Your task to perform on an android device: Open the map Image 0: 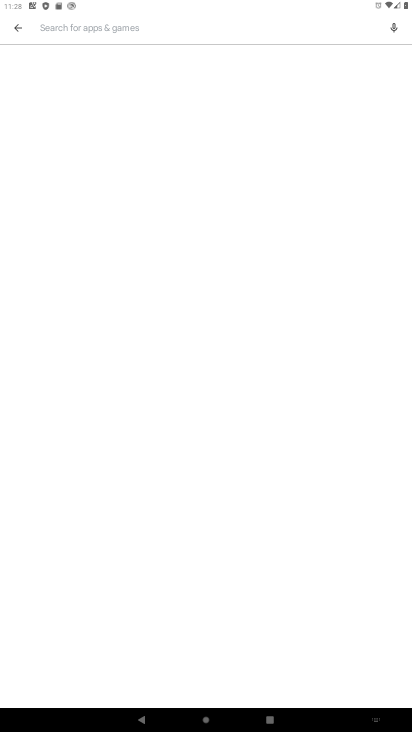
Step 0: press home button
Your task to perform on an android device: Open the map Image 1: 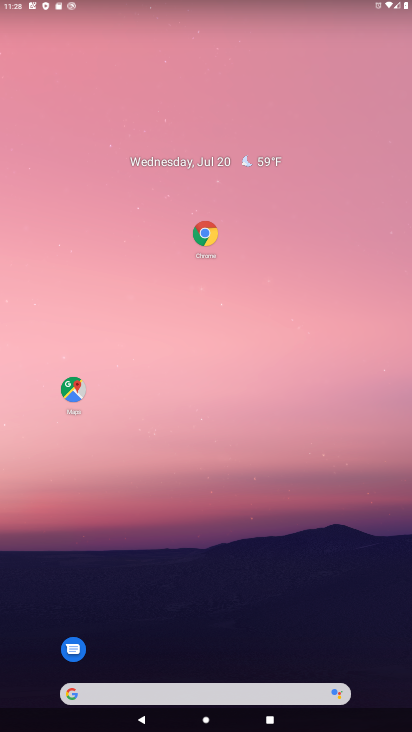
Step 1: click (79, 392)
Your task to perform on an android device: Open the map Image 2: 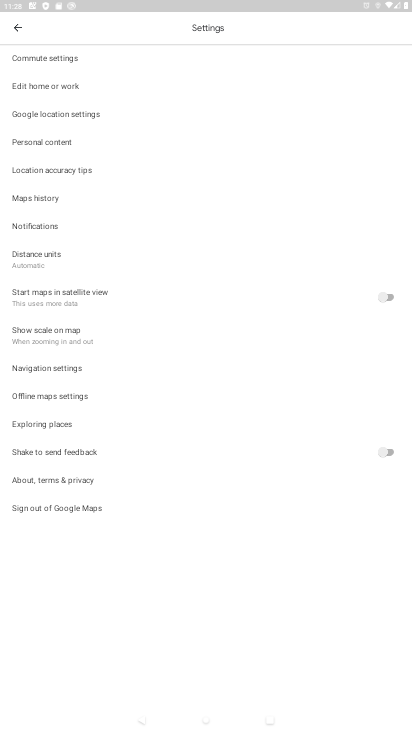
Step 2: task complete